Your task to perform on an android device: Open notification settings Image 0: 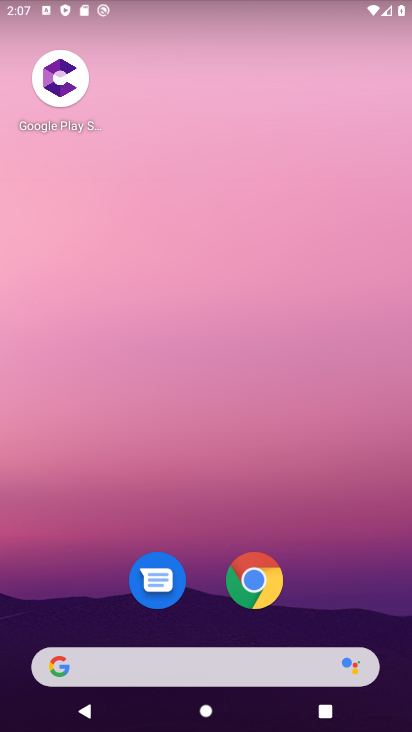
Step 0: drag from (217, 625) to (181, 48)
Your task to perform on an android device: Open notification settings Image 1: 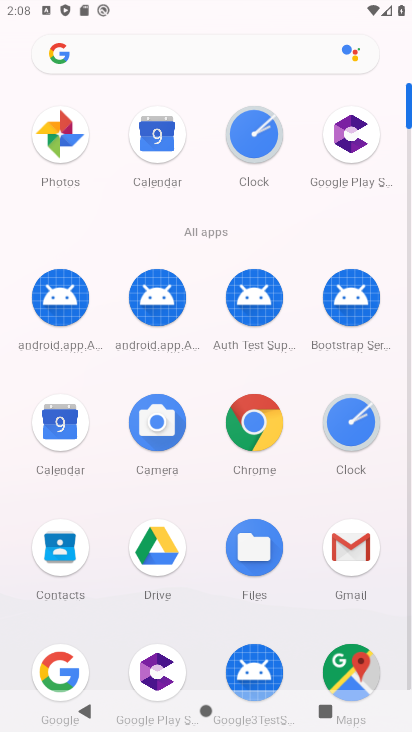
Step 1: drag from (201, 631) to (192, 210)
Your task to perform on an android device: Open notification settings Image 2: 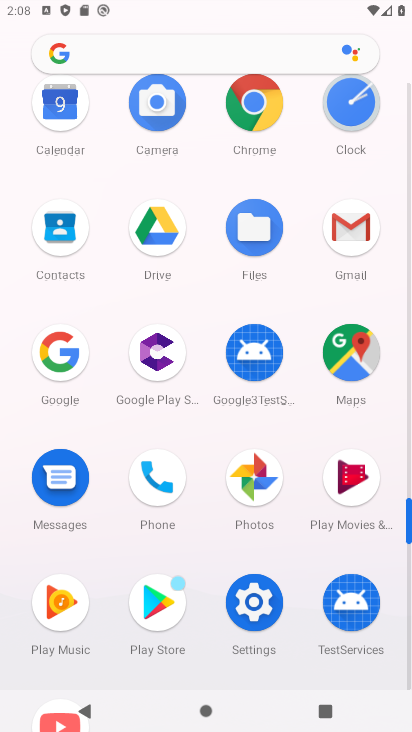
Step 2: click (254, 601)
Your task to perform on an android device: Open notification settings Image 3: 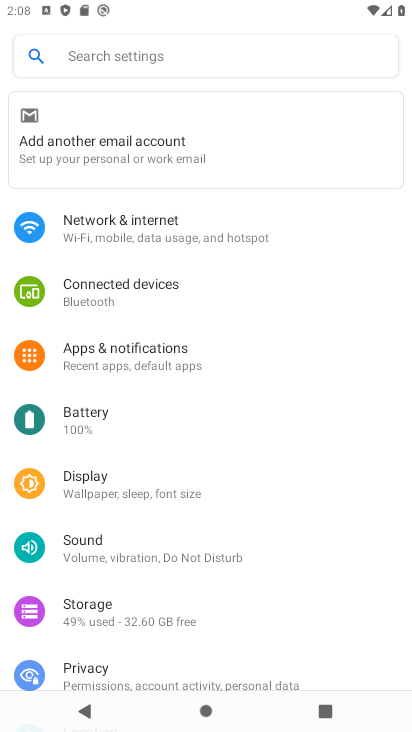
Step 3: click (187, 350)
Your task to perform on an android device: Open notification settings Image 4: 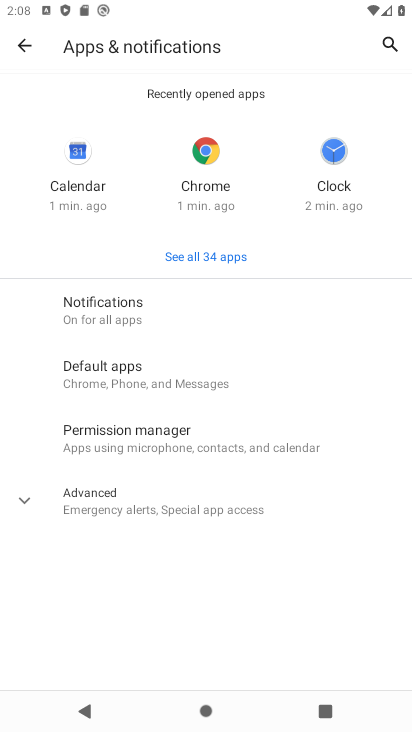
Step 4: task complete